Your task to perform on an android device: add a contact Image 0: 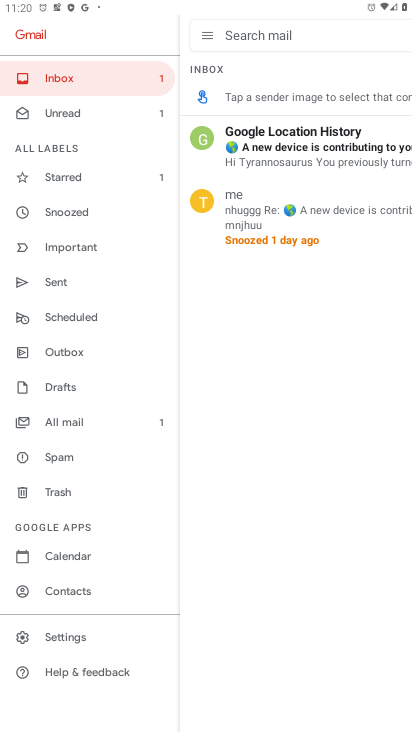
Step 0: press home button
Your task to perform on an android device: add a contact Image 1: 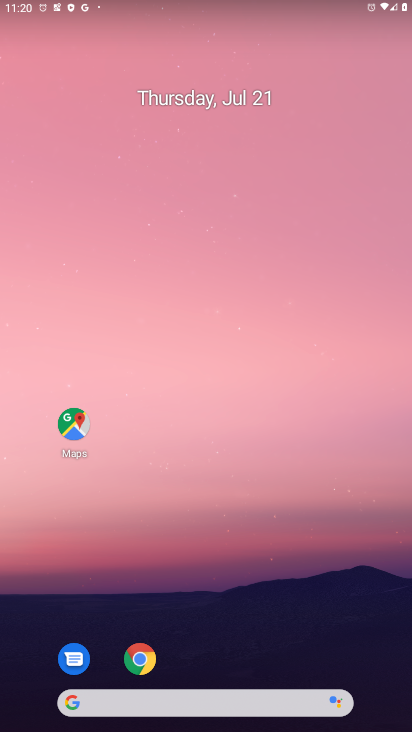
Step 1: drag from (197, 703) to (207, 89)
Your task to perform on an android device: add a contact Image 2: 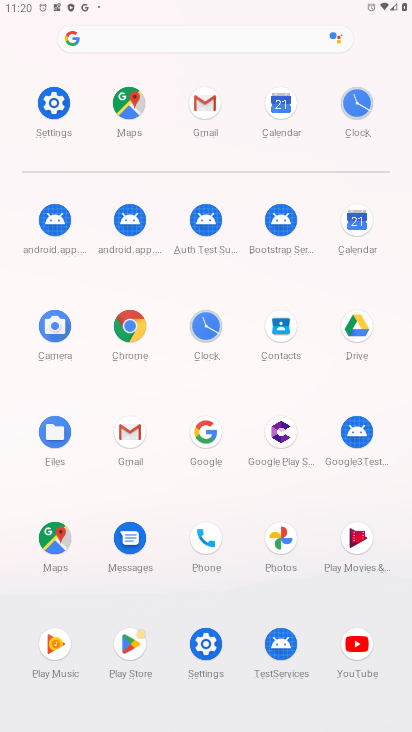
Step 2: click (282, 323)
Your task to perform on an android device: add a contact Image 3: 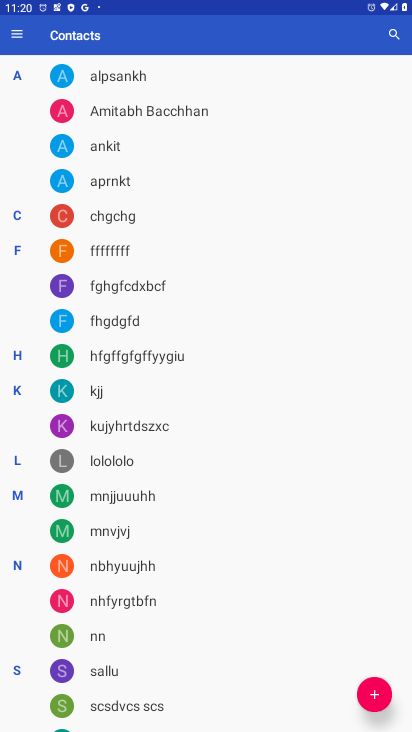
Step 3: click (376, 695)
Your task to perform on an android device: add a contact Image 4: 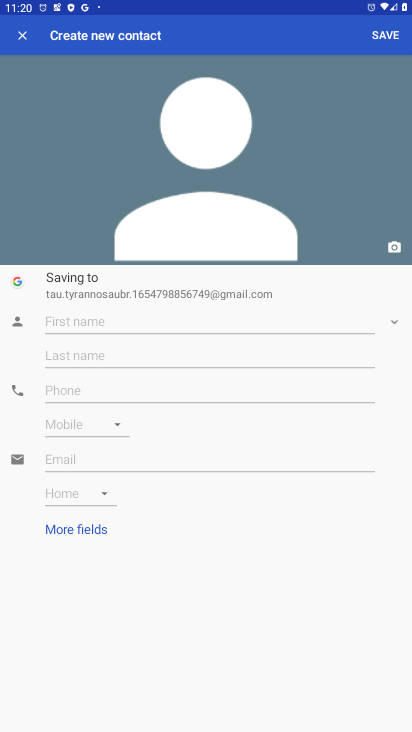
Step 4: click (192, 314)
Your task to perform on an android device: add a contact Image 5: 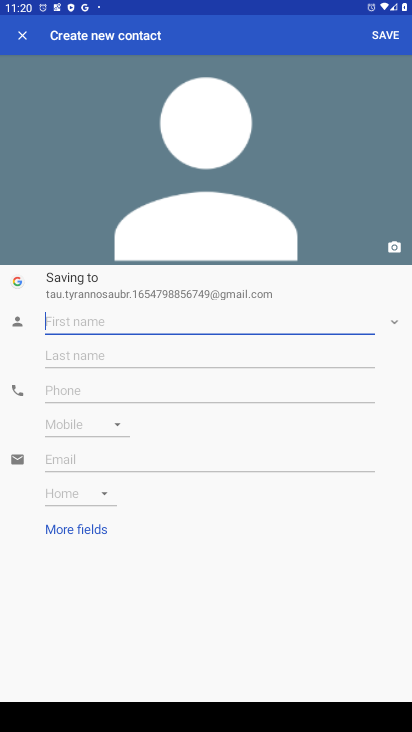
Step 5: type "Vaivabhi"
Your task to perform on an android device: add a contact Image 6: 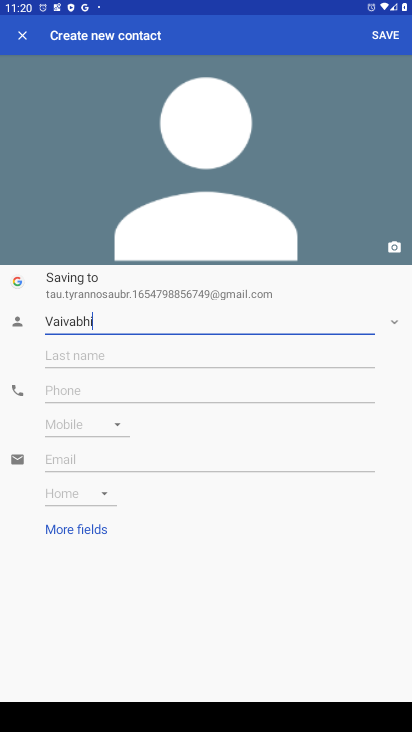
Step 6: click (290, 355)
Your task to perform on an android device: add a contact Image 7: 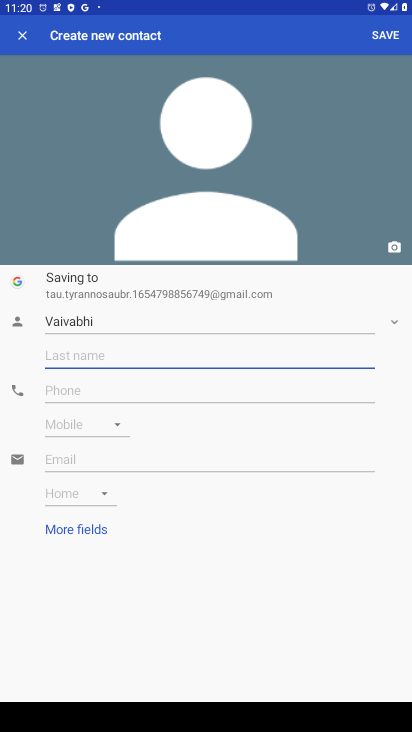
Step 7: type "Marchant"
Your task to perform on an android device: add a contact Image 8: 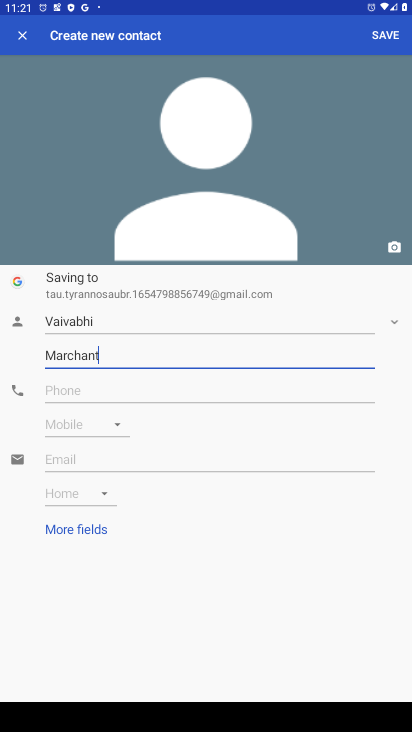
Step 8: click (222, 388)
Your task to perform on an android device: add a contact Image 9: 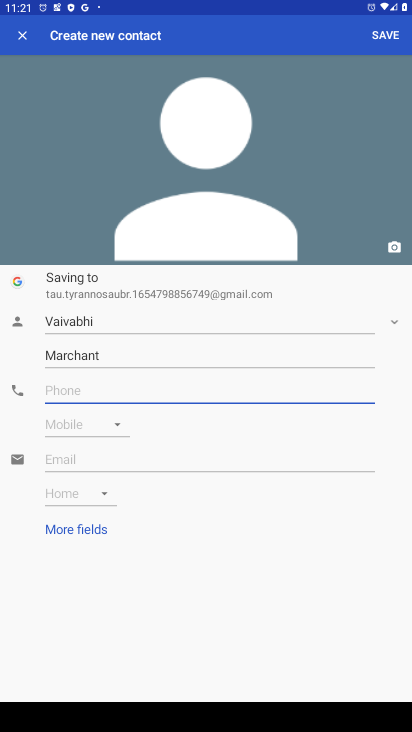
Step 9: type "098765"
Your task to perform on an android device: add a contact Image 10: 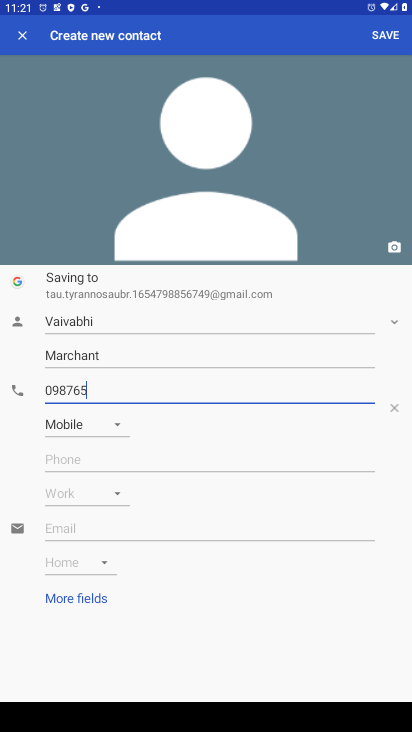
Step 10: type "0987654321"
Your task to perform on an android device: add a contact Image 11: 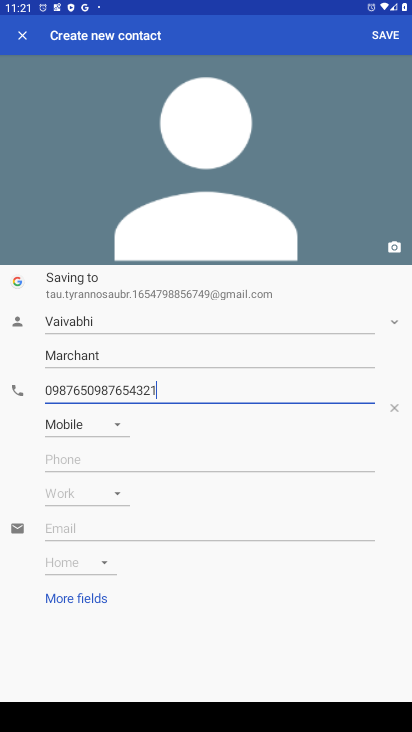
Step 11: click (397, 35)
Your task to perform on an android device: add a contact Image 12: 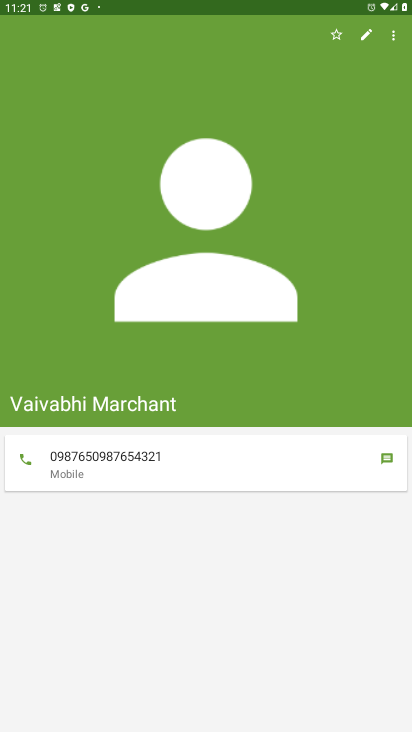
Step 12: task complete